Your task to perform on an android device: What is the recent news? Image 0: 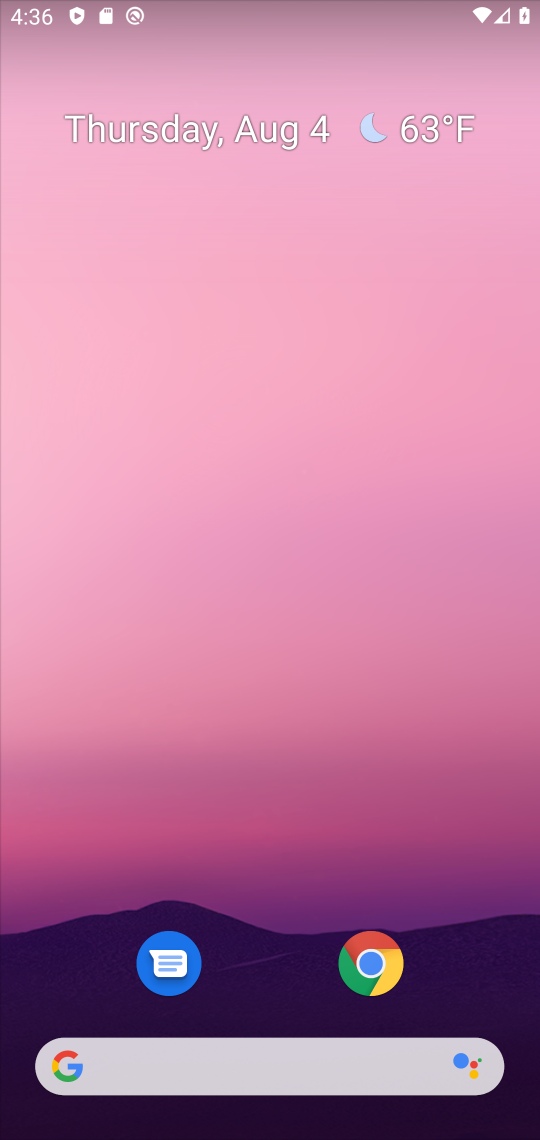
Step 0: drag from (39, 564) to (517, 632)
Your task to perform on an android device: What is the recent news? Image 1: 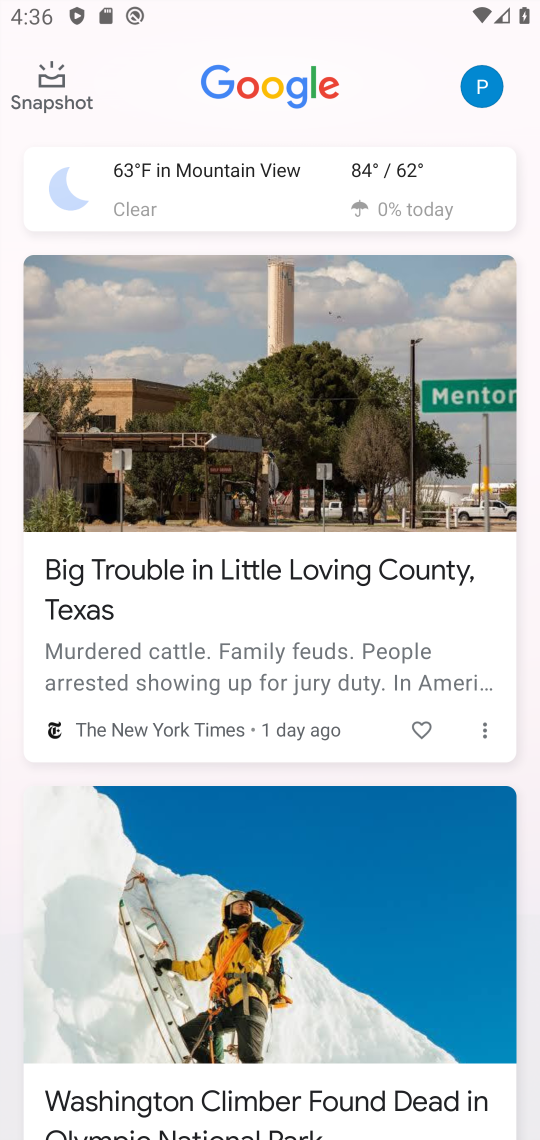
Step 1: task complete